Your task to perform on an android device: Open Google Maps and go to "Timeline" Image 0: 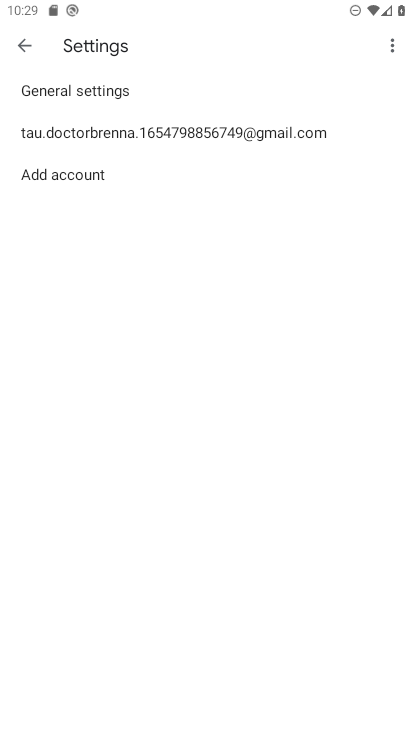
Step 0: press home button
Your task to perform on an android device: Open Google Maps and go to "Timeline" Image 1: 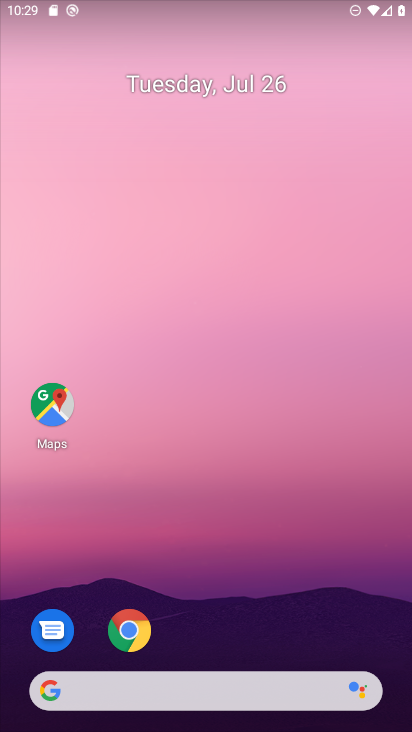
Step 1: click (52, 404)
Your task to perform on an android device: Open Google Maps and go to "Timeline" Image 2: 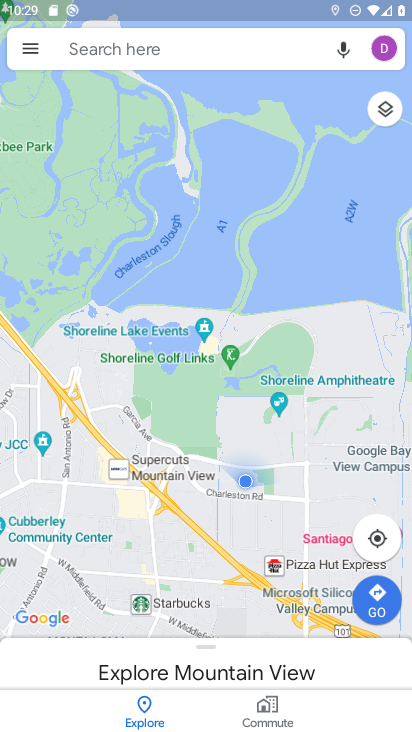
Step 2: click (30, 52)
Your task to perform on an android device: Open Google Maps and go to "Timeline" Image 3: 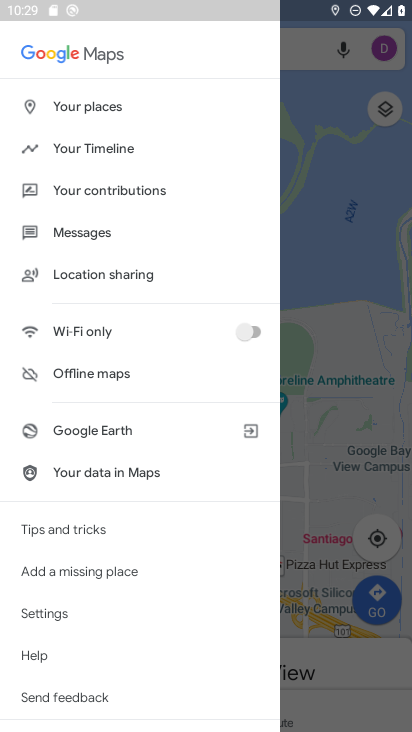
Step 3: click (76, 142)
Your task to perform on an android device: Open Google Maps and go to "Timeline" Image 4: 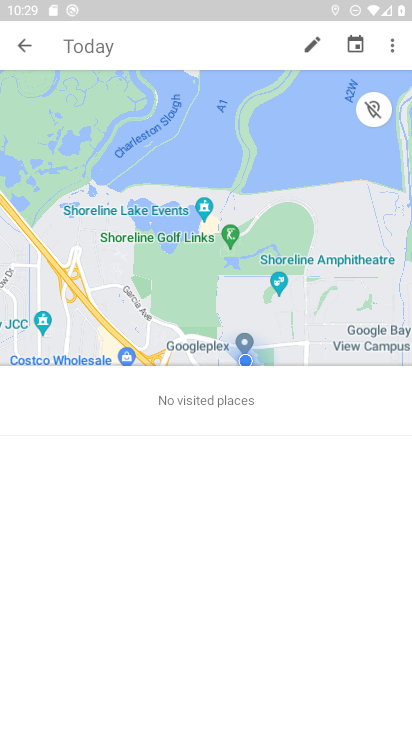
Step 4: task complete